Your task to perform on an android device: add a label to a message in the gmail app Image 0: 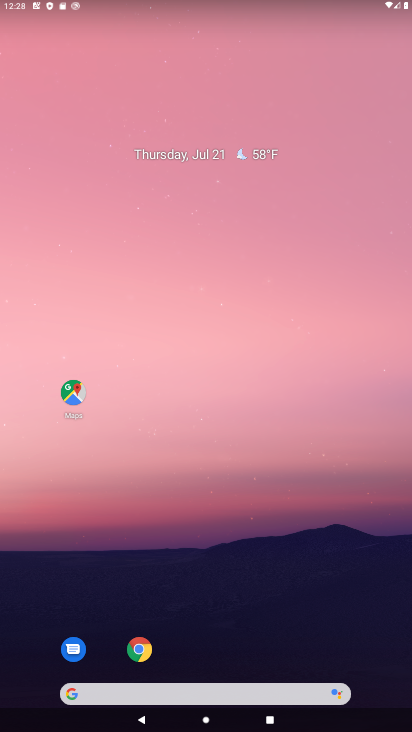
Step 0: drag from (379, 654) to (351, 84)
Your task to perform on an android device: add a label to a message in the gmail app Image 1: 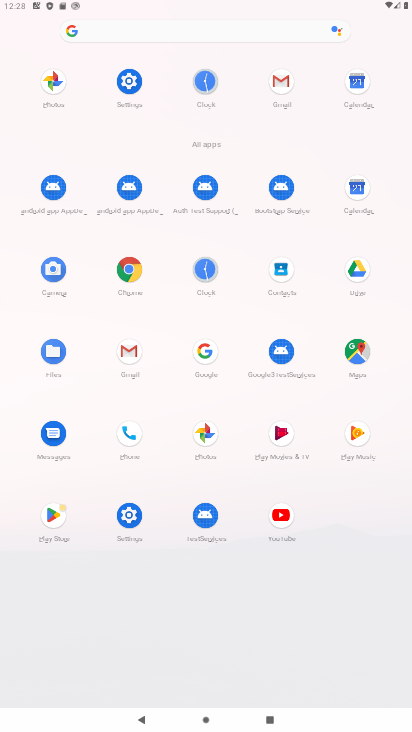
Step 1: click (126, 350)
Your task to perform on an android device: add a label to a message in the gmail app Image 2: 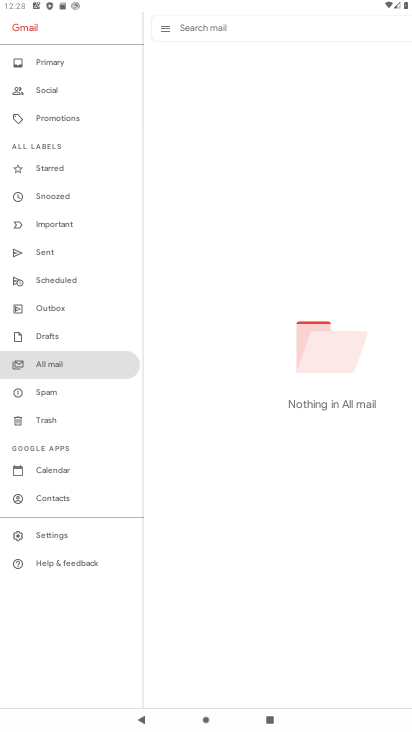
Step 2: click (69, 358)
Your task to perform on an android device: add a label to a message in the gmail app Image 3: 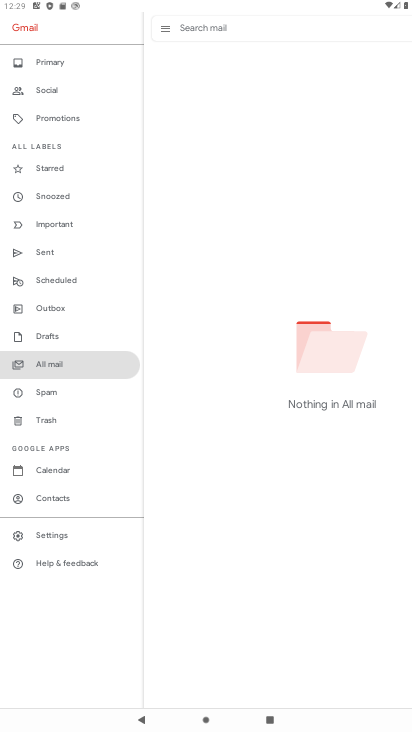
Step 3: task complete